Your task to perform on an android device: toggle notification dots Image 0: 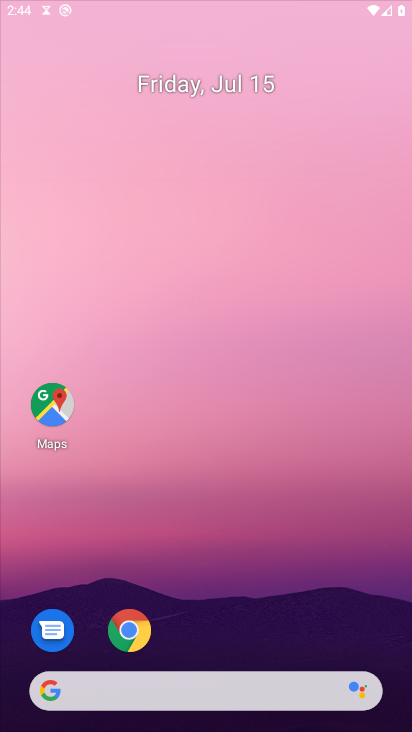
Step 0: press home button
Your task to perform on an android device: toggle notification dots Image 1: 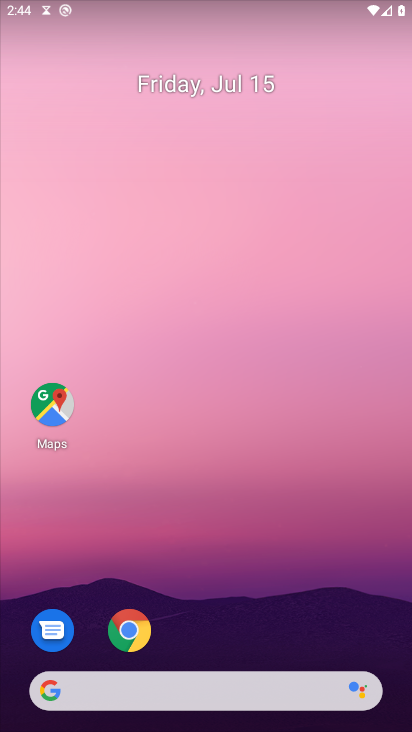
Step 1: drag from (249, 650) to (299, 99)
Your task to perform on an android device: toggle notification dots Image 2: 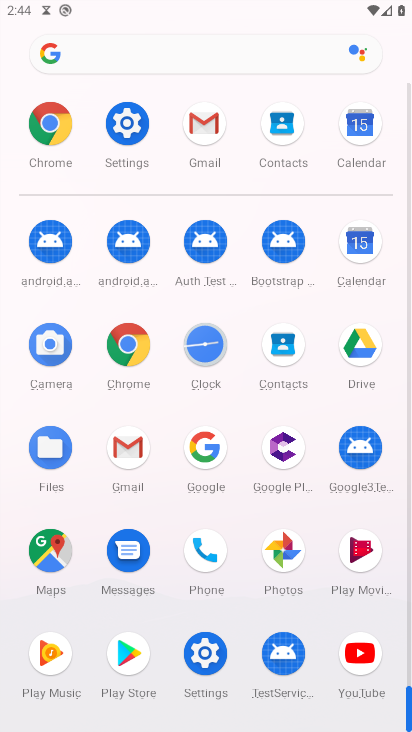
Step 2: click (116, 125)
Your task to perform on an android device: toggle notification dots Image 3: 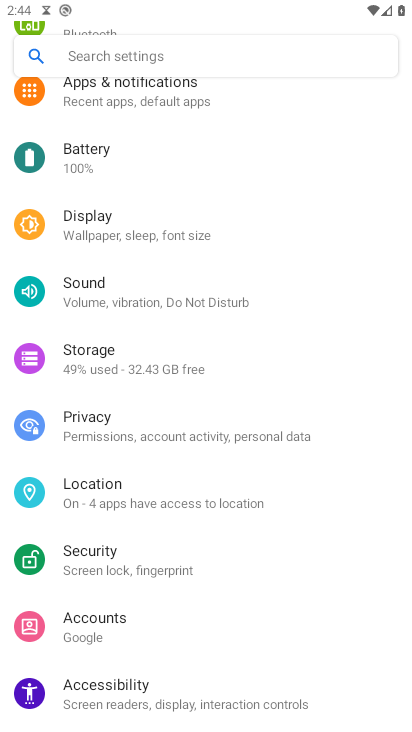
Step 3: click (125, 103)
Your task to perform on an android device: toggle notification dots Image 4: 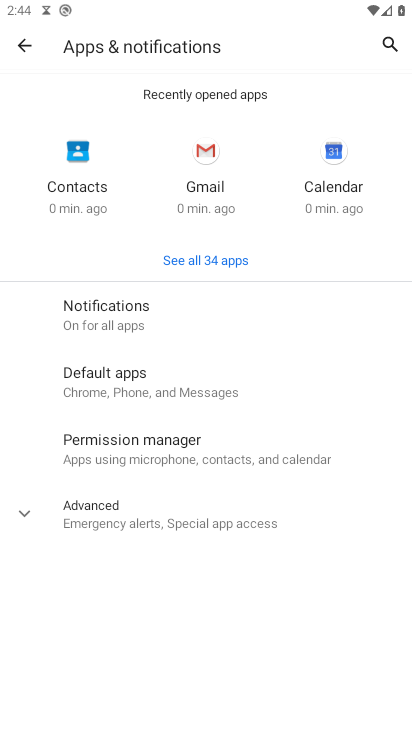
Step 4: click (120, 320)
Your task to perform on an android device: toggle notification dots Image 5: 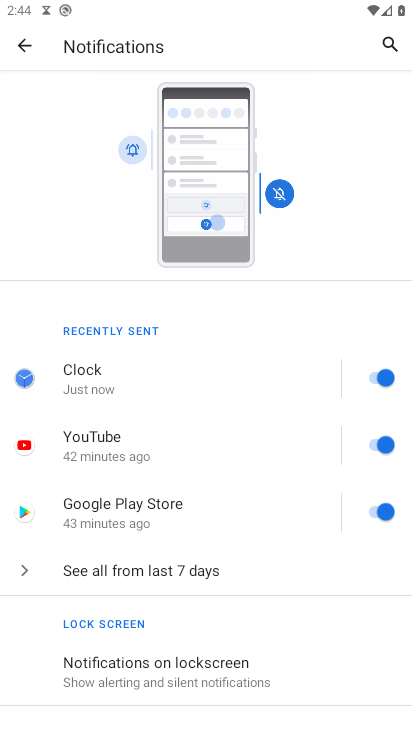
Step 5: drag from (282, 562) to (285, 85)
Your task to perform on an android device: toggle notification dots Image 6: 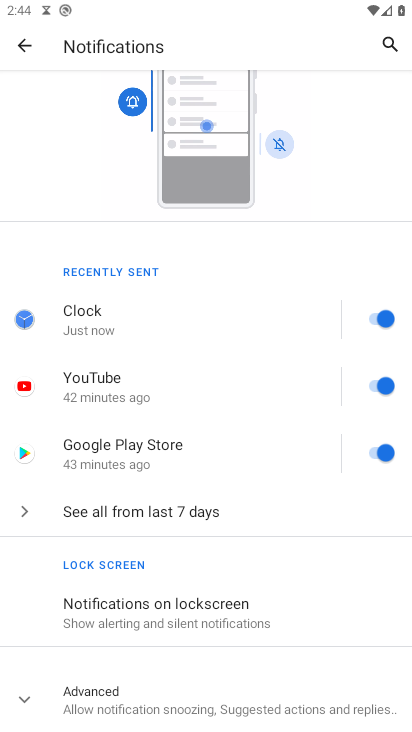
Step 6: click (87, 709)
Your task to perform on an android device: toggle notification dots Image 7: 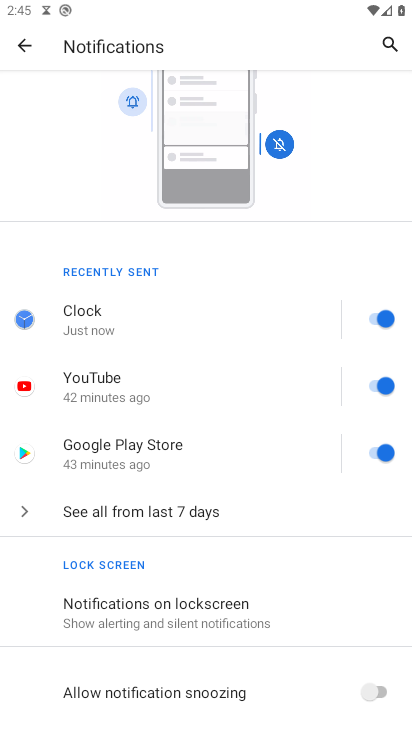
Step 7: drag from (184, 660) to (134, 24)
Your task to perform on an android device: toggle notification dots Image 8: 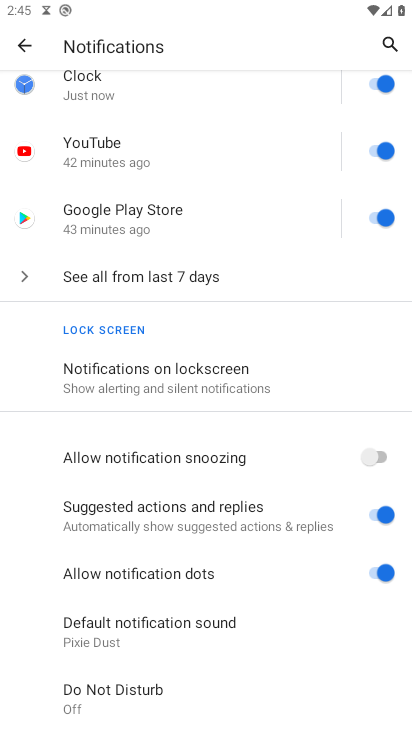
Step 8: click (386, 578)
Your task to perform on an android device: toggle notification dots Image 9: 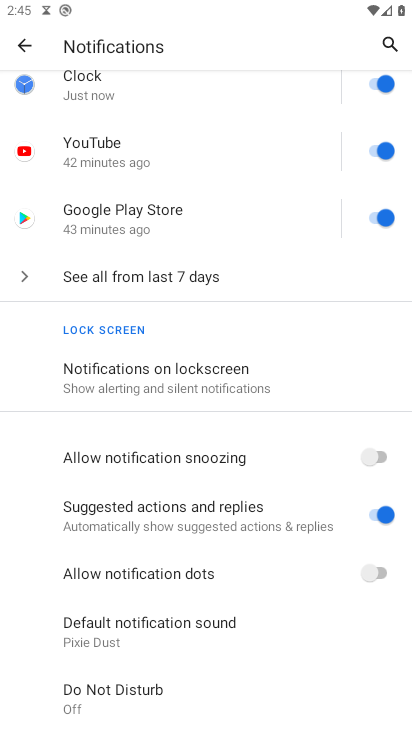
Step 9: task complete